Your task to perform on an android device: Go to notification settings Image 0: 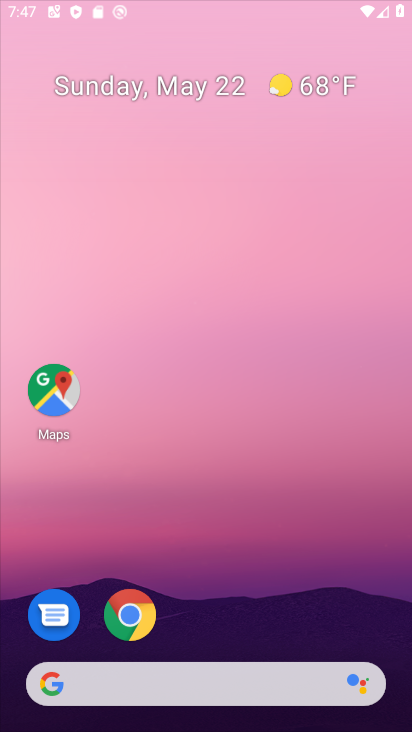
Step 0: press home button
Your task to perform on an android device: Go to notification settings Image 1: 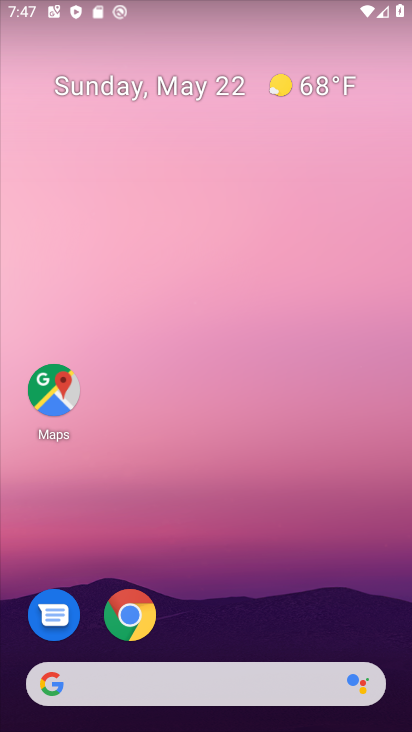
Step 1: drag from (226, 644) to (97, 61)
Your task to perform on an android device: Go to notification settings Image 2: 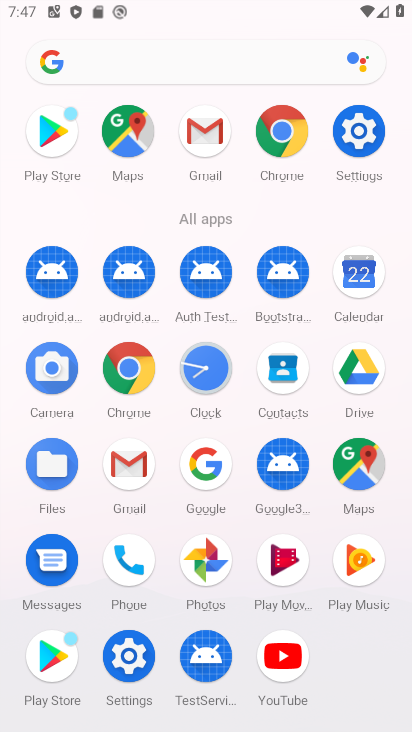
Step 2: click (350, 131)
Your task to perform on an android device: Go to notification settings Image 3: 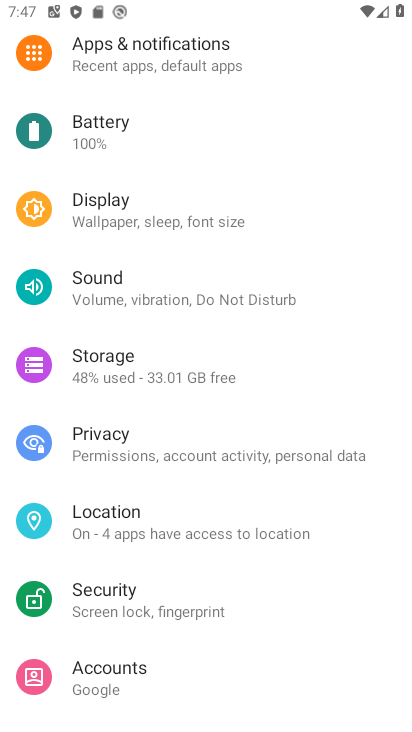
Step 3: click (135, 45)
Your task to perform on an android device: Go to notification settings Image 4: 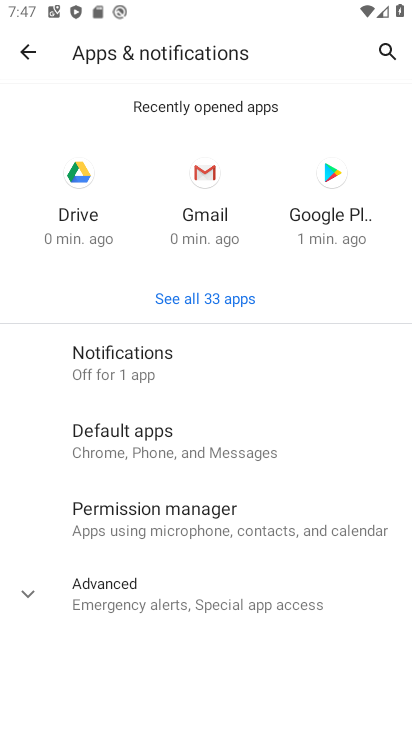
Step 4: click (154, 351)
Your task to perform on an android device: Go to notification settings Image 5: 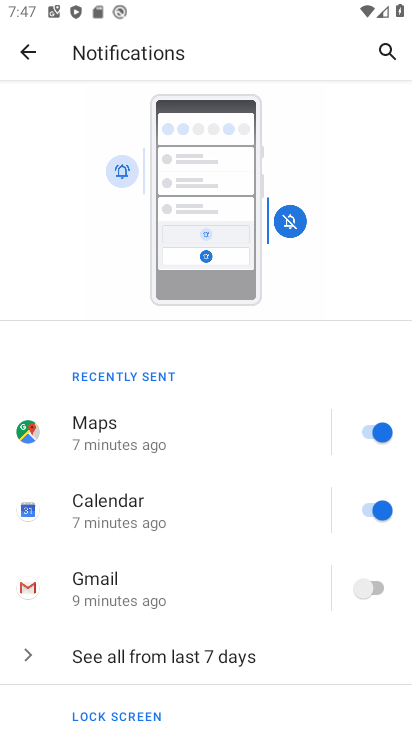
Step 5: task complete